Your task to perform on an android device: Turn on the flashlight Image 0: 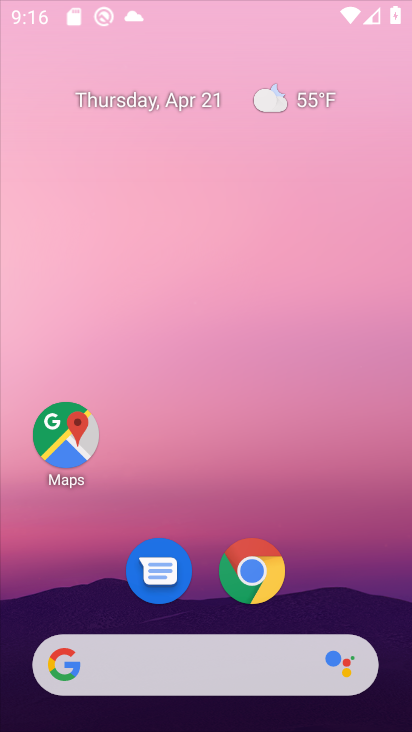
Step 0: click (244, 151)
Your task to perform on an android device: Turn on the flashlight Image 1: 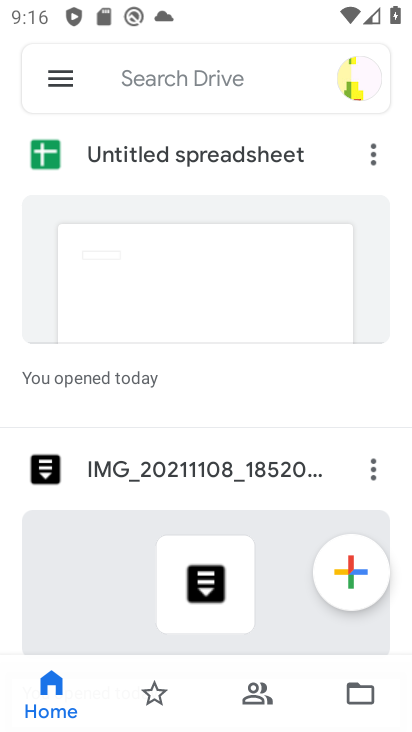
Step 1: task complete